Your task to perform on an android device: turn off javascript in the chrome app Image 0: 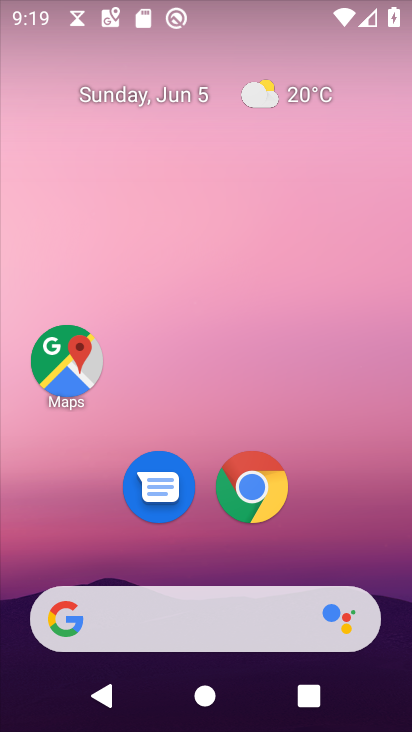
Step 0: click (259, 486)
Your task to perform on an android device: turn off javascript in the chrome app Image 1: 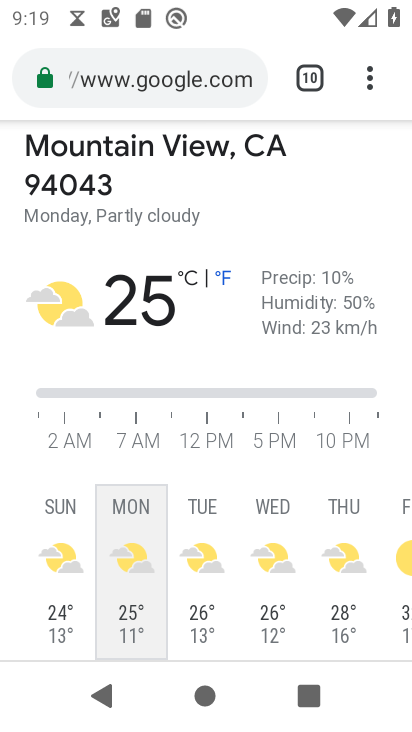
Step 1: click (365, 79)
Your task to perform on an android device: turn off javascript in the chrome app Image 2: 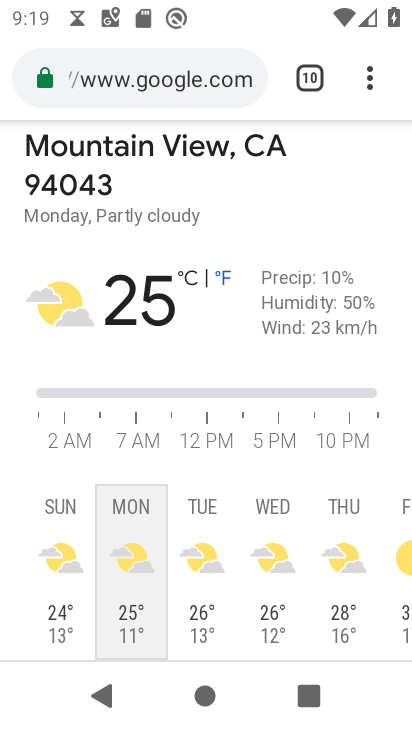
Step 2: click (363, 84)
Your task to perform on an android device: turn off javascript in the chrome app Image 3: 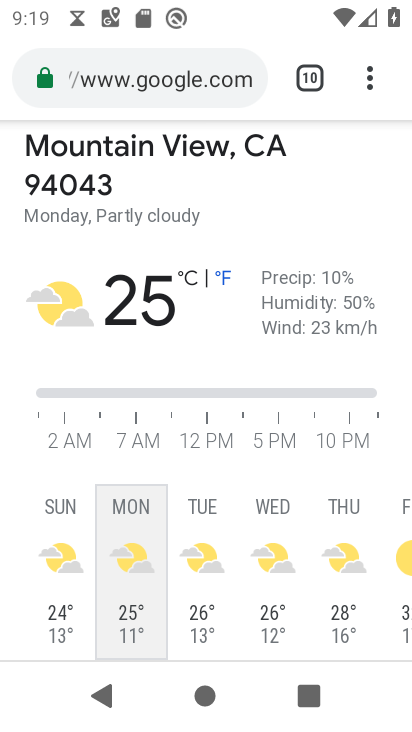
Step 3: click (361, 84)
Your task to perform on an android device: turn off javascript in the chrome app Image 4: 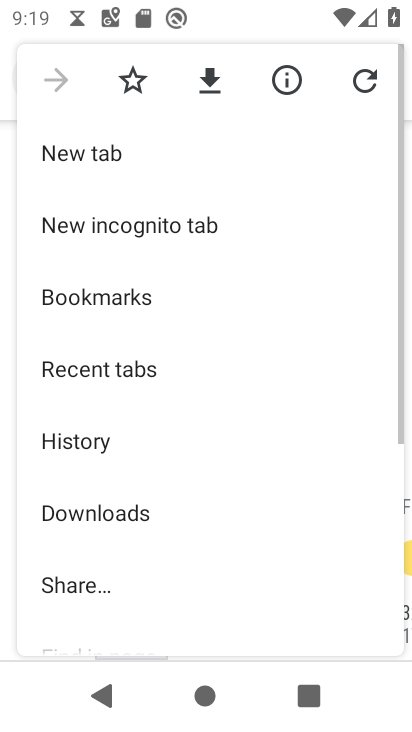
Step 4: drag from (161, 523) to (199, 302)
Your task to perform on an android device: turn off javascript in the chrome app Image 5: 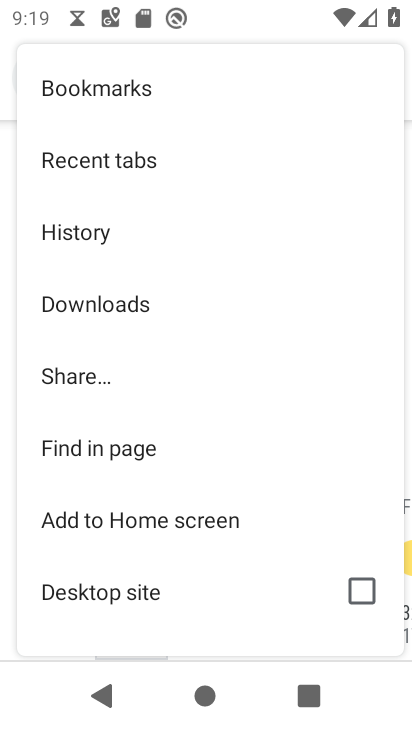
Step 5: drag from (128, 490) to (187, 250)
Your task to perform on an android device: turn off javascript in the chrome app Image 6: 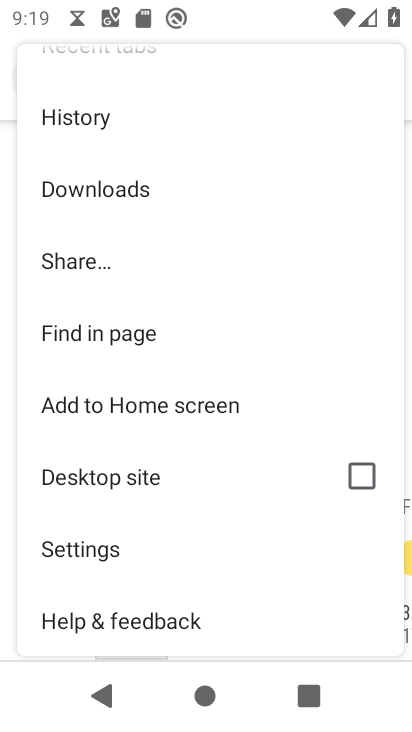
Step 6: click (91, 539)
Your task to perform on an android device: turn off javascript in the chrome app Image 7: 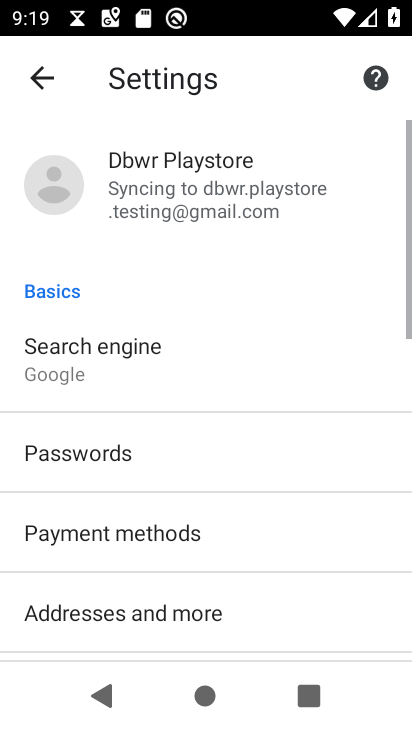
Step 7: drag from (191, 552) to (216, 291)
Your task to perform on an android device: turn off javascript in the chrome app Image 8: 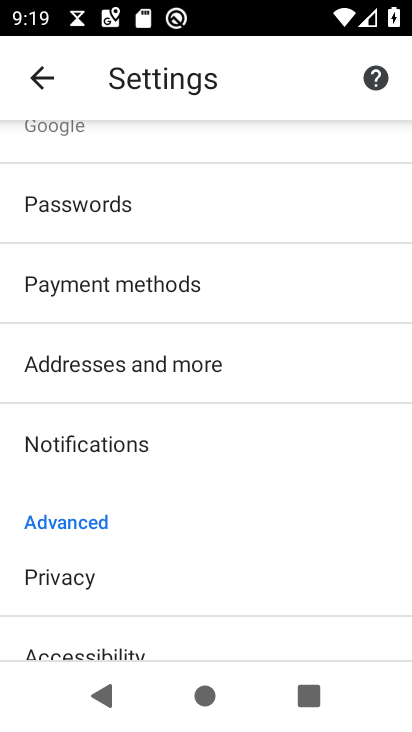
Step 8: drag from (220, 546) to (237, 282)
Your task to perform on an android device: turn off javascript in the chrome app Image 9: 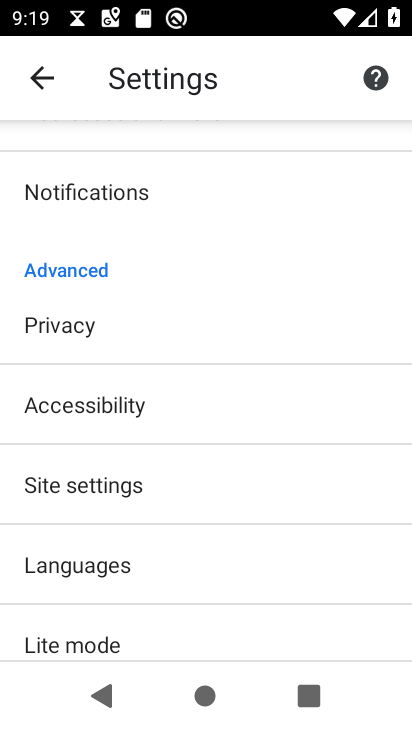
Step 9: click (129, 479)
Your task to perform on an android device: turn off javascript in the chrome app Image 10: 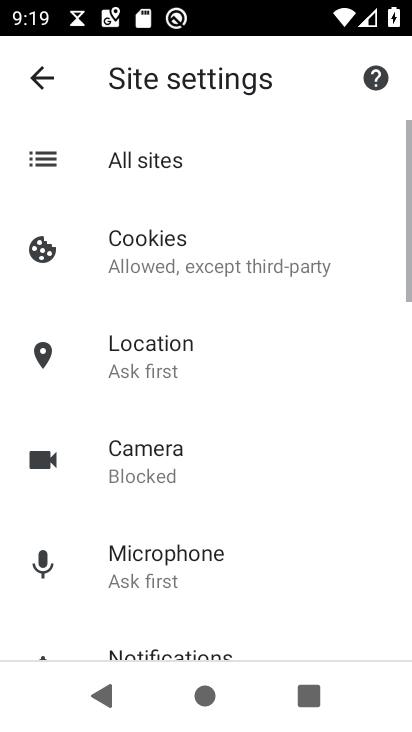
Step 10: drag from (176, 566) to (217, 331)
Your task to perform on an android device: turn off javascript in the chrome app Image 11: 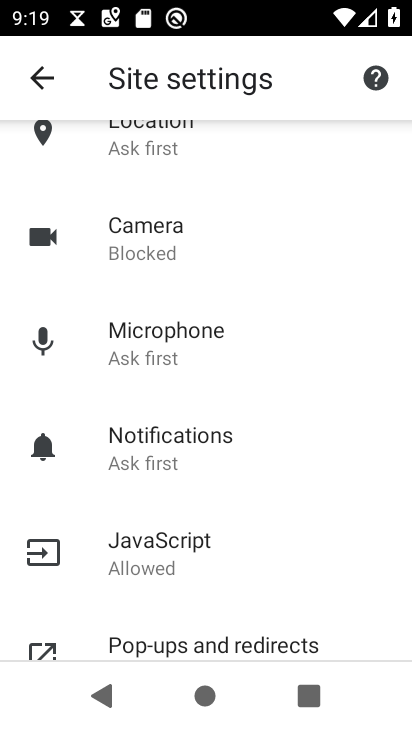
Step 11: click (168, 535)
Your task to perform on an android device: turn off javascript in the chrome app Image 12: 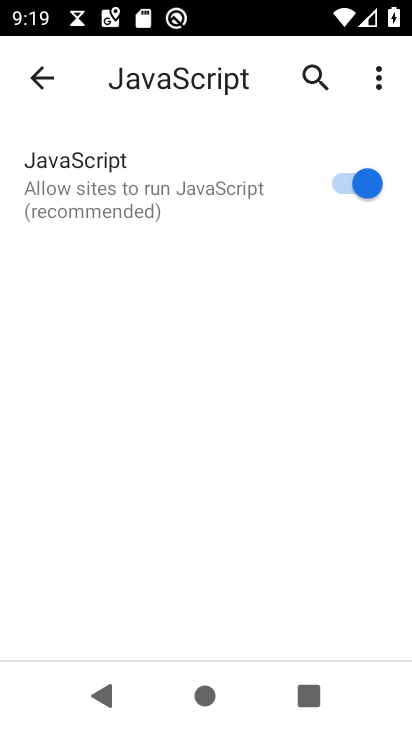
Step 12: click (344, 178)
Your task to perform on an android device: turn off javascript in the chrome app Image 13: 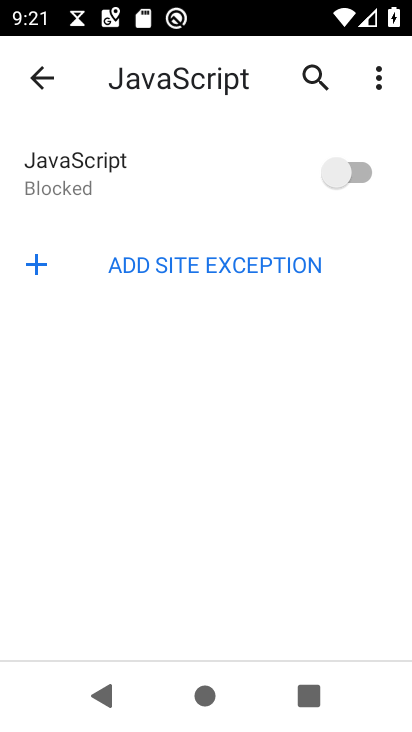
Step 13: task complete